Your task to perform on an android device: turn off notifications in google photos Image 0: 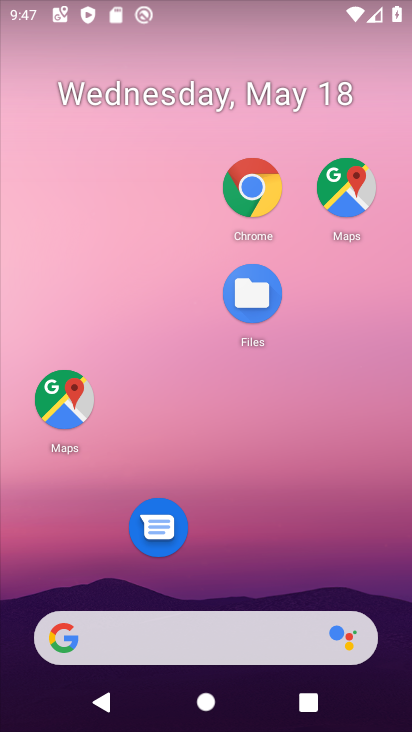
Step 0: drag from (302, 470) to (265, 122)
Your task to perform on an android device: turn off notifications in google photos Image 1: 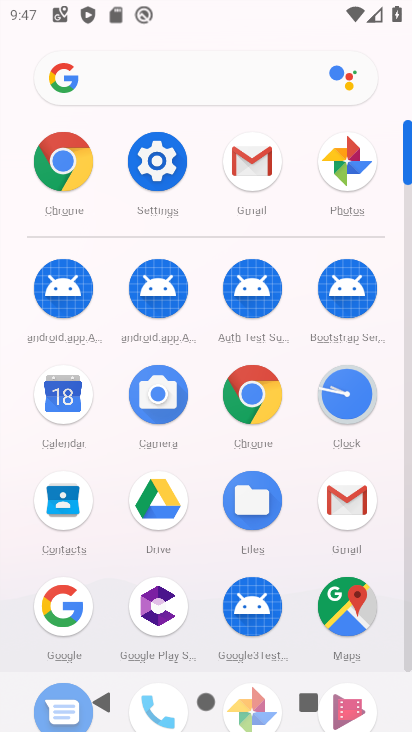
Step 1: click (350, 180)
Your task to perform on an android device: turn off notifications in google photos Image 2: 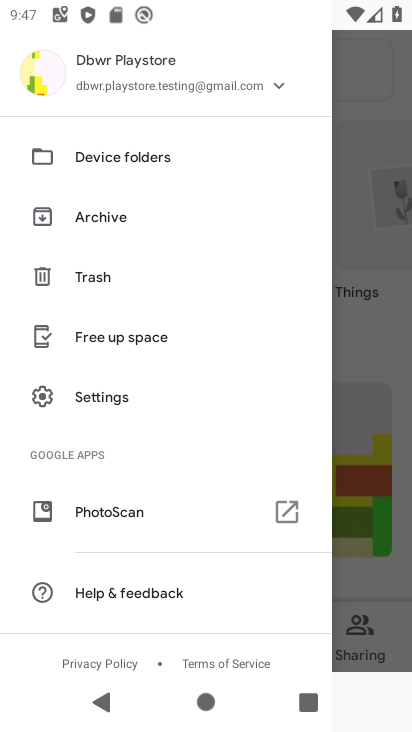
Step 2: click (97, 389)
Your task to perform on an android device: turn off notifications in google photos Image 3: 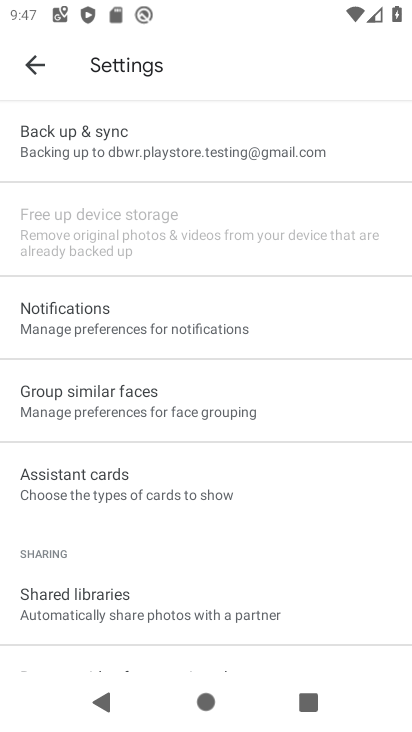
Step 3: click (196, 310)
Your task to perform on an android device: turn off notifications in google photos Image 4: 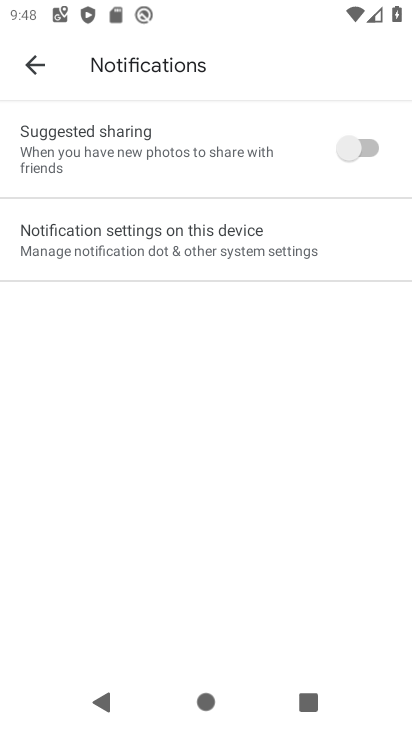
Step 4: task complete